Your task to perform on an android device: move a message to another label in the gmail app Image 0: 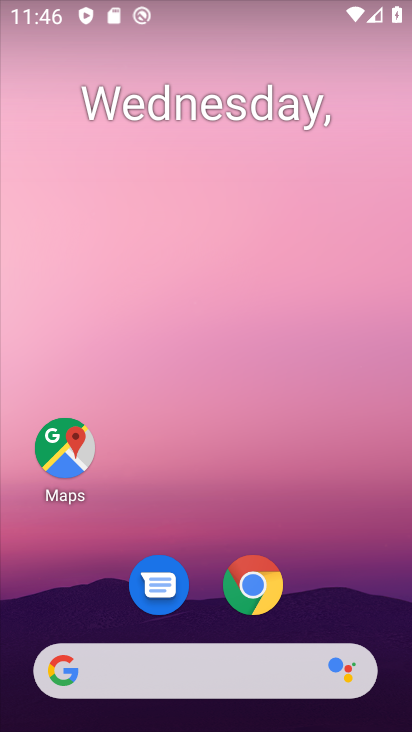
Step 0: drag from (276, 479) to (239, 13)
Your task to perform on an android device: move a message to another label in the gmail app Image 1: 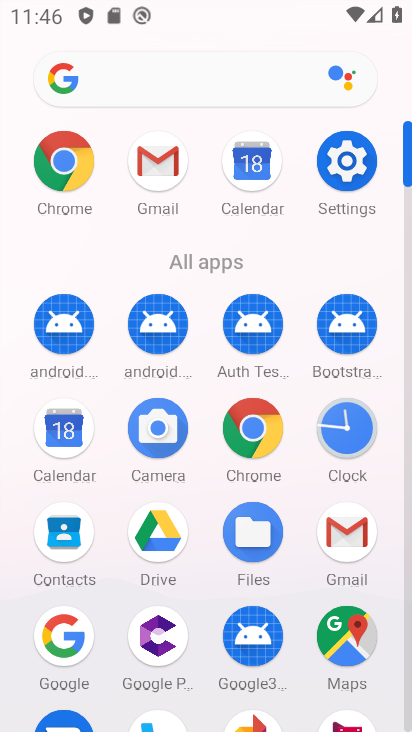
Step 1: click (162, 158)
Your task to perform on an android device: move a message to another label in the gmail app Image 2: 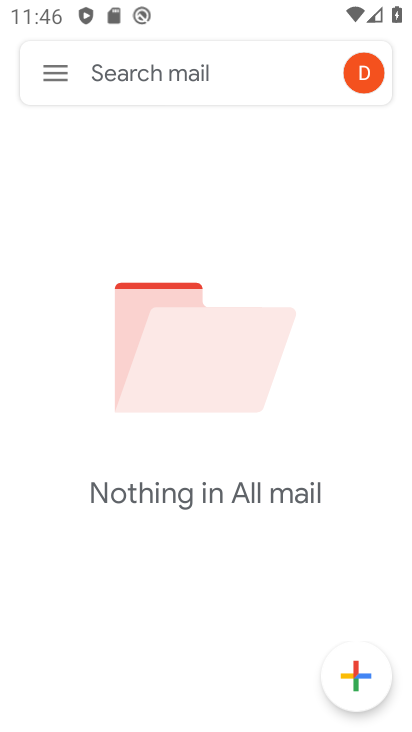
Step 2: task complete